Your task to perform on an android device: all mails in gmail Image 0: 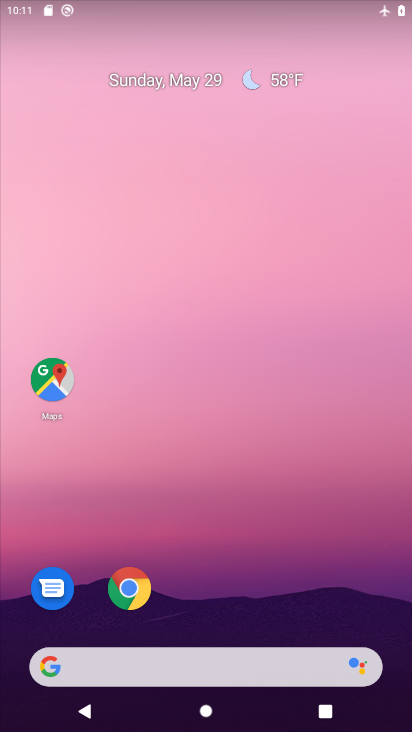
Step 0: drag from (247, 649) to (148, 162)
Your task to perform on an android device: all mails in gmail Image 1: 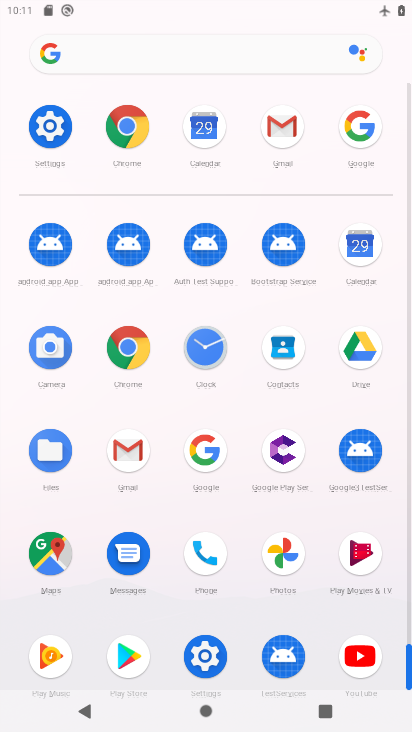
Step 1: click (113, 451)
Your task to perform on an android device: all mails in gmail Image 2: 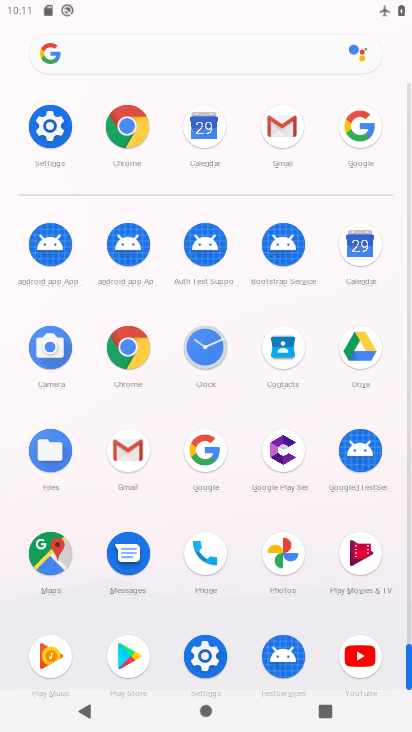
Step 2: click (115, 449)
Your task to perform on an android device: all mails in gmail Image 3: 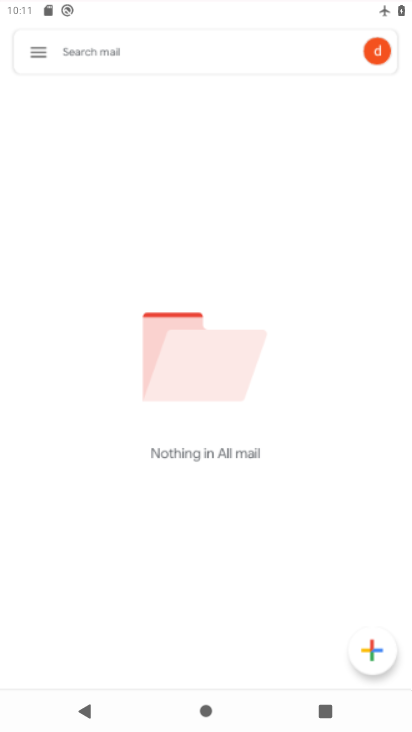
Step 3: click (118, 447)
Your task to perform on an android device: all mails in gmail Image 4: 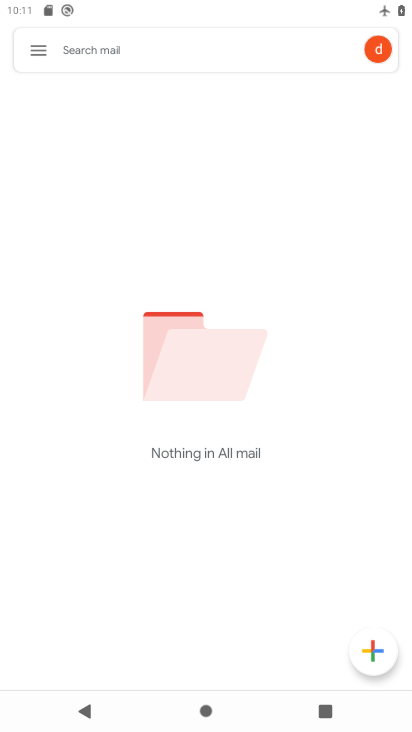
Step 4: click (119, 445)
Your task to perform on an android device: all mails in gmail Image 5: 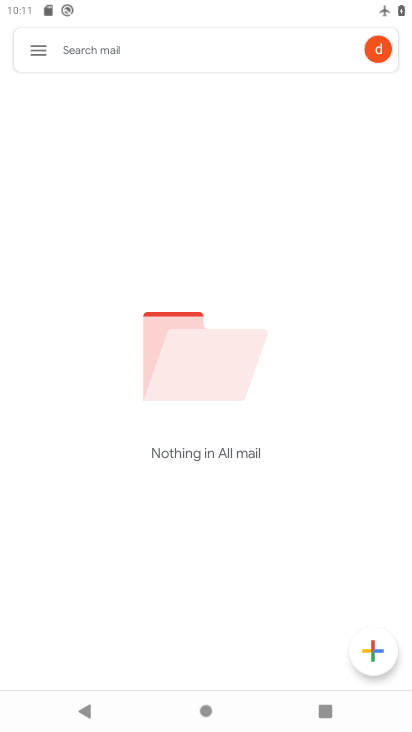
Step 5: click (31, 47)
Your task to perform on an android device: all mails in gmail Image 6: 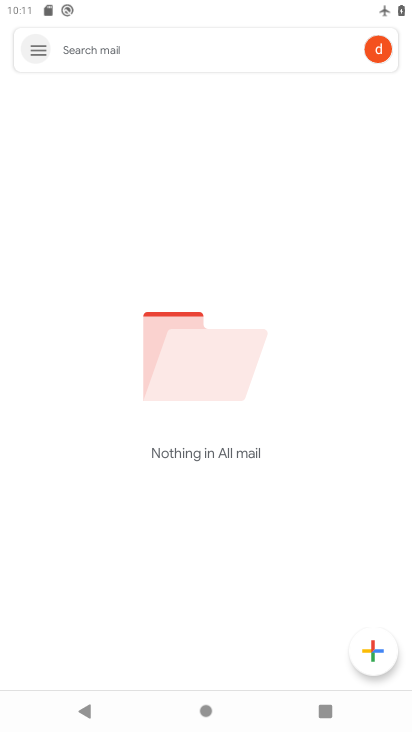
Step 6: click (32, 47)
Your task to perform on an android device: all mails in gmail Image 7: 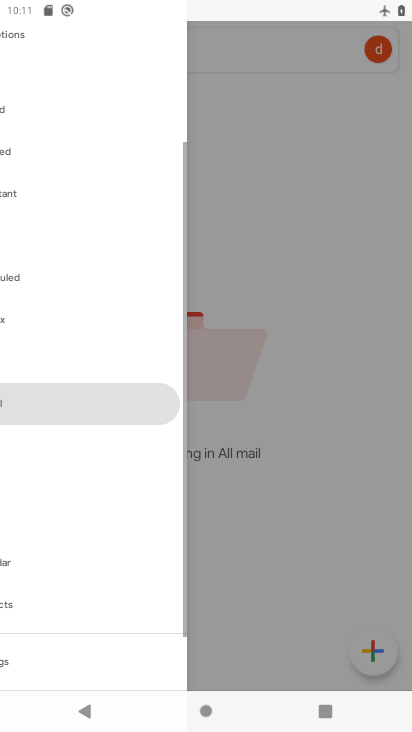
Step 7: click (32, 47)
Your task to perform on an android device: all mails in gmail Image 8: 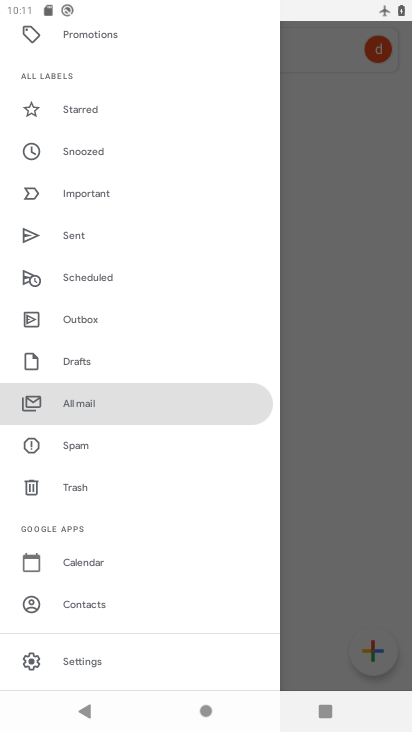
Step 8: click (93, 403)
Your task to perform on an android device: all mails in gmail Image 9: 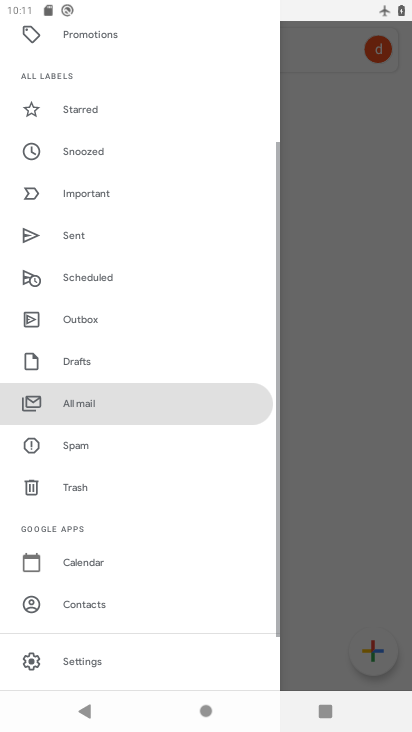
Step 9: click (94, 404)
Your task to perform on an android device: all mails in gmail Image 10: 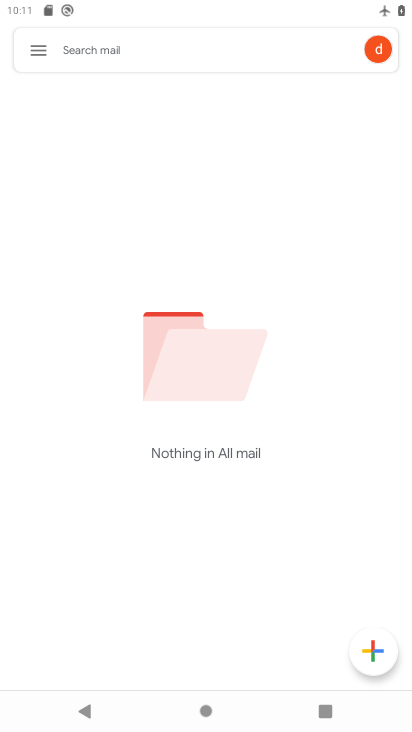
Step 10: task complete